Your task to perform on an android device: Go to Google maps Image 0: 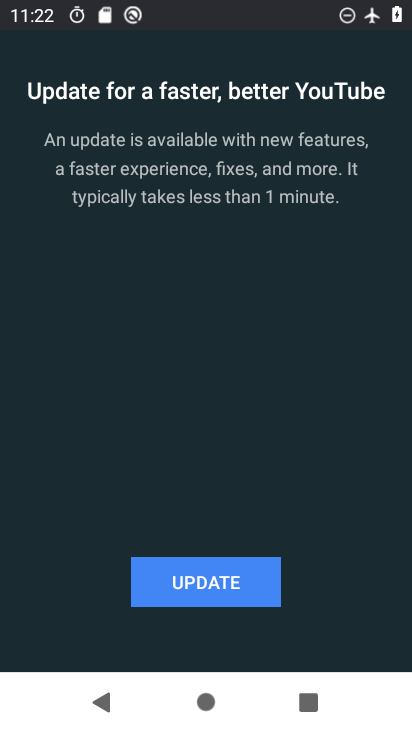
Step 0: press home button
Your task to perform on an android device: Go to Google maps Image 1: 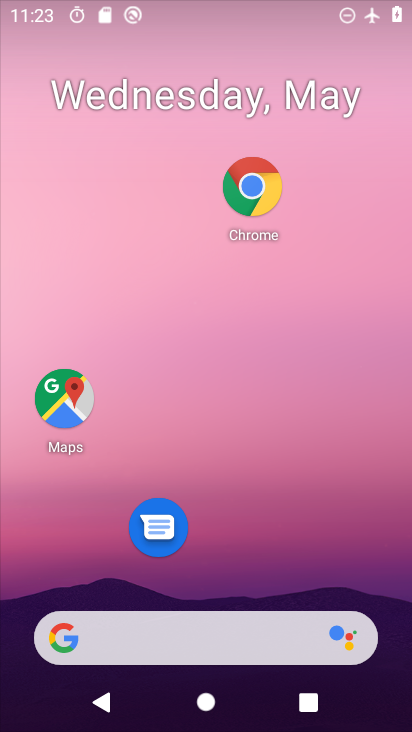
Step 1: press home button
Your task to perform on an android device: Go to Google maps Image 2: 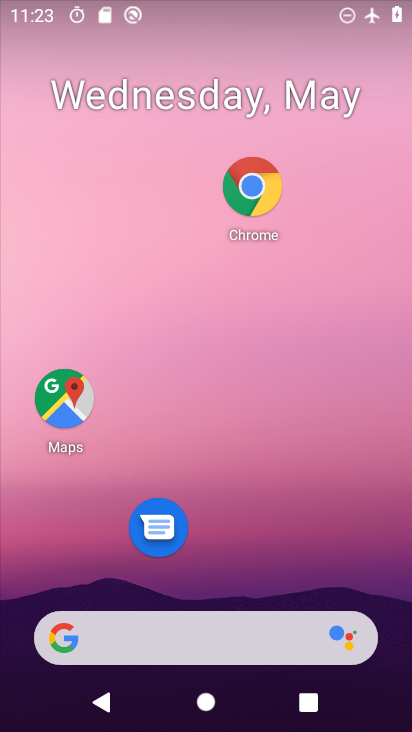
Step 2: press home button
Your task to perform on an android device: Go to Google maps Image 3: 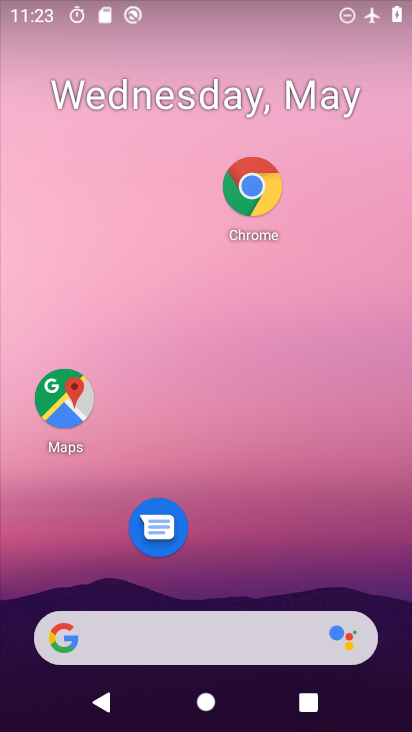
Step 3: drag from (261, 606) to (343, 244)
Your task to perform on an android device: Go to Google maps Image 4: 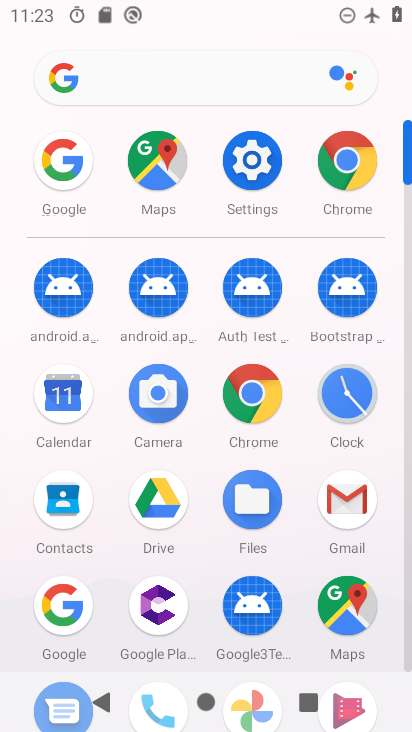
Step 4: click (159, 171)
Your task to perform on an android device: Go to Google maps Image 5: 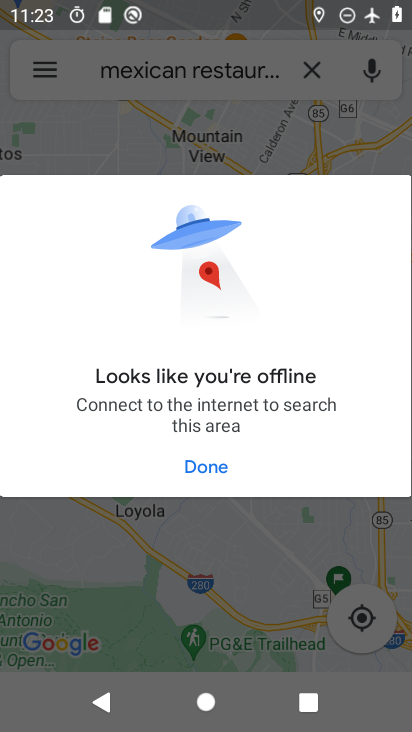
Step 5: task complete